Your task to perform on an android device: change notifications settings Image 0: 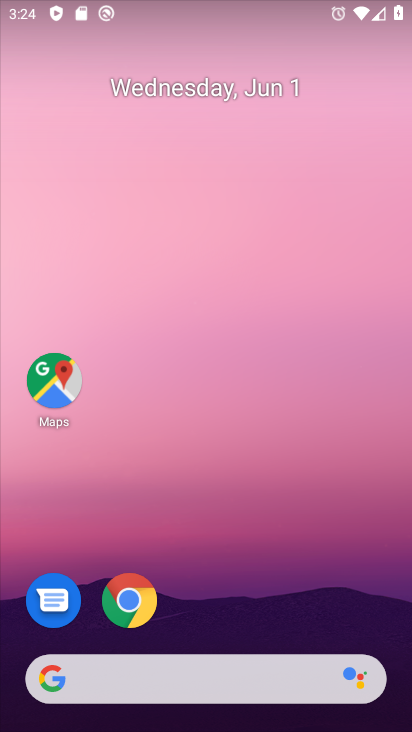
Step 0: drag from (231, 613) to (227, 66)
Your task to perform on an android device: change notifications settings Image 1: 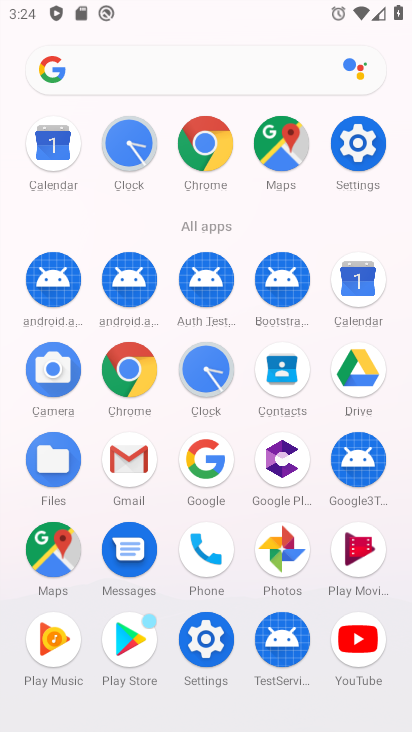
Step 1: click (362, 151)
Your task to perform on an android device: change notifications settings Image 2: 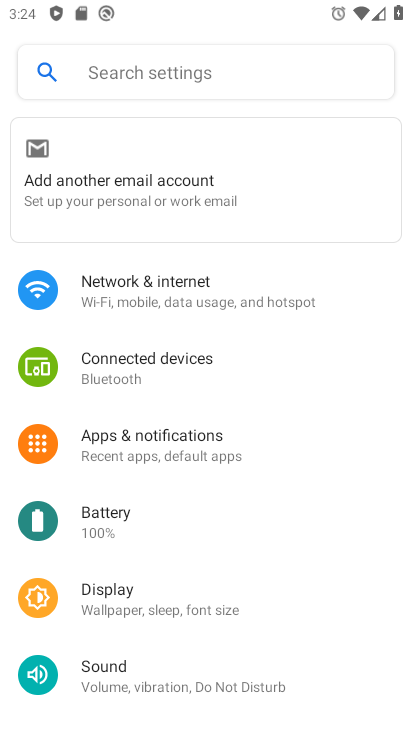
Step 2: click (164, 448)
Your task to perform on an android device: change notifications settings Image 3: 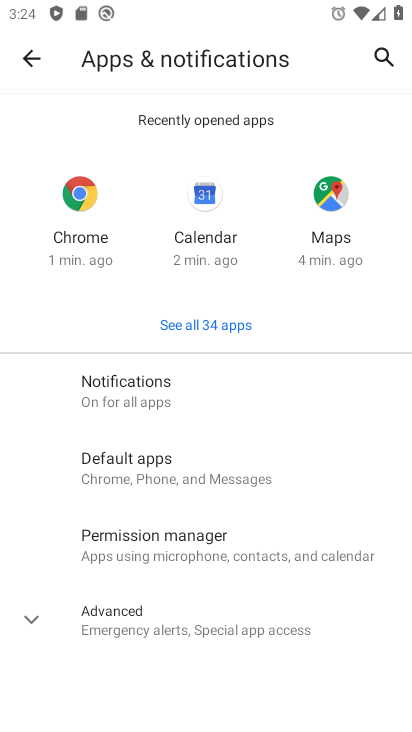
Step 3: click (133, 399)
Your task to perform on an android device: change notifications settings Image 4: 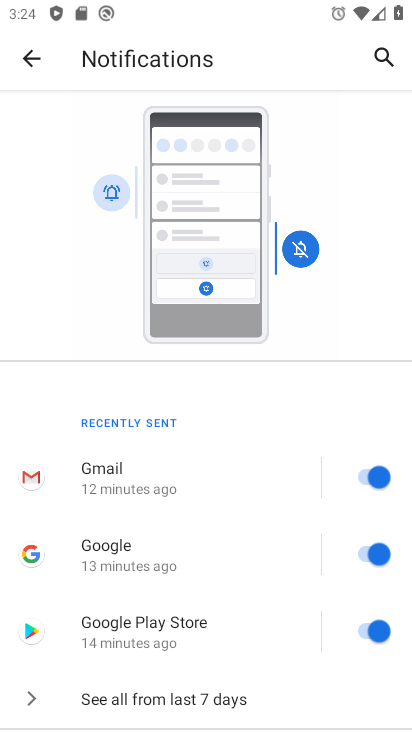
Step 4: drag from (202, 676) to (214, 395)
Your task to perform on an android device: change notifications settings Image 5: 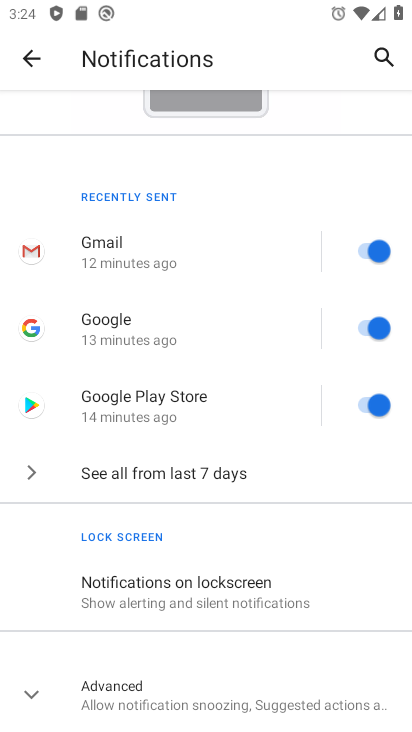
Step 5: click (150, 707)
Your task to perform on an android device: change notifications settings Image 6: 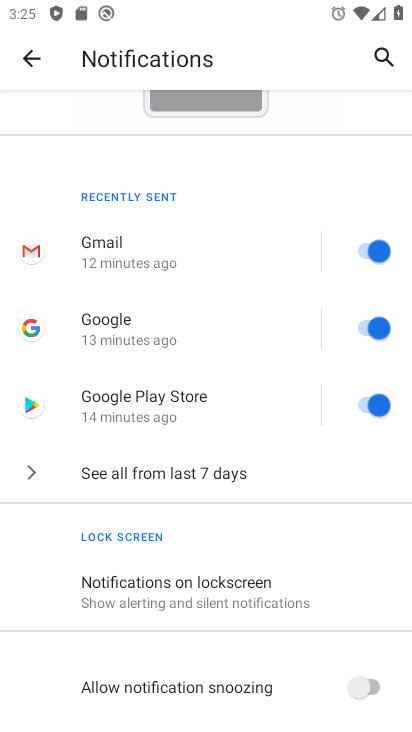
Step 6: drag from (151, 674) to (193, 439)
Your task to perform on an android device: change notifications settings Image 7: 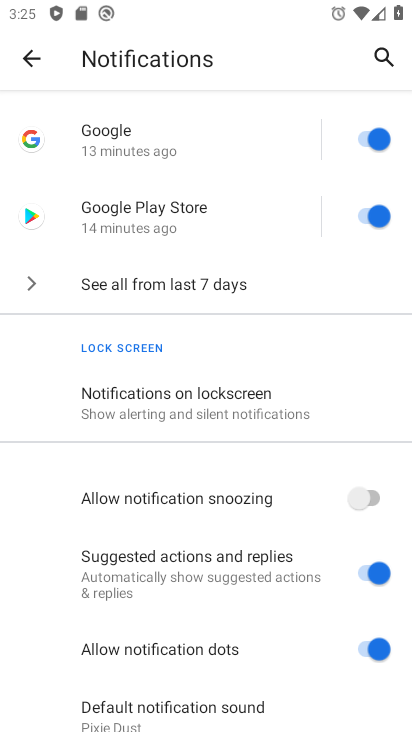
Step 7: click (196, 410)
Your task to perform on an android device: change notifications settings Image 8: 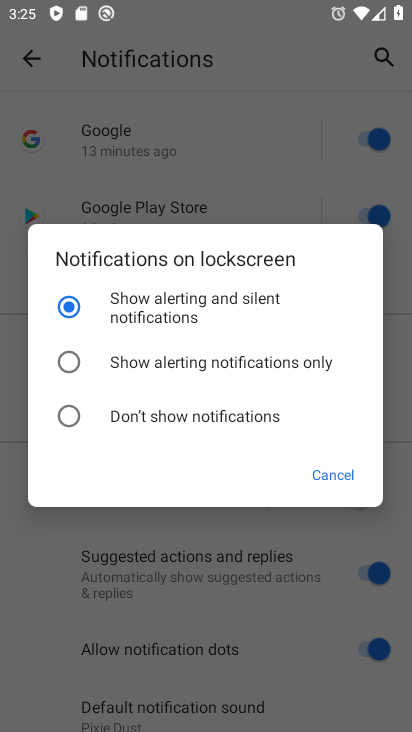
Step 8: click (77, 413)
Your task to perform on an android device: change notifications settings Image 9: 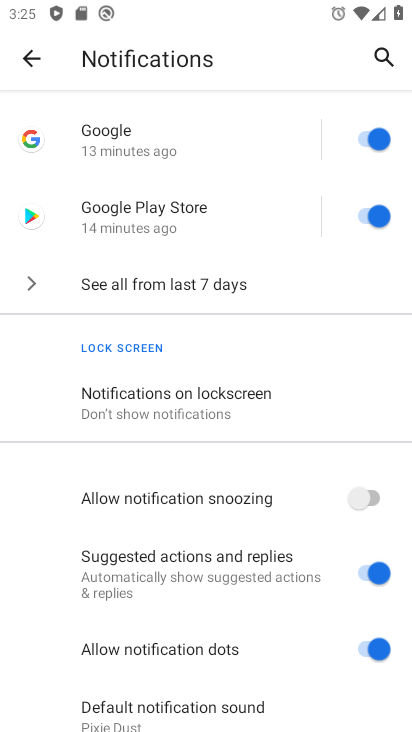
Step 9: task complete